Your task to perform on an android device: Open ESPN.com Image 0: 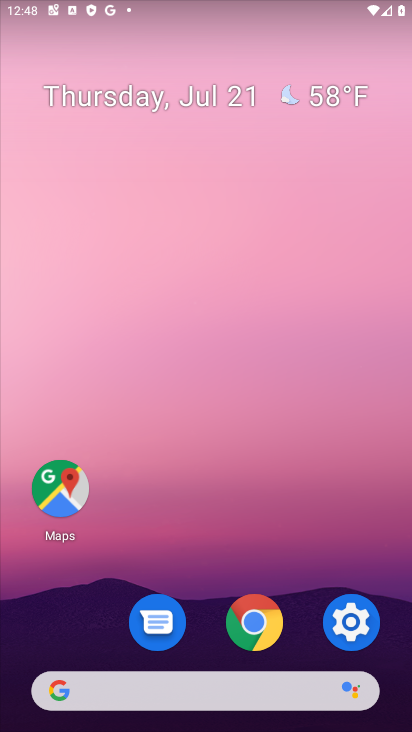
Step 0: click (256, 616)
Your task to perform on an android device: Open ESPN.com Image 1: 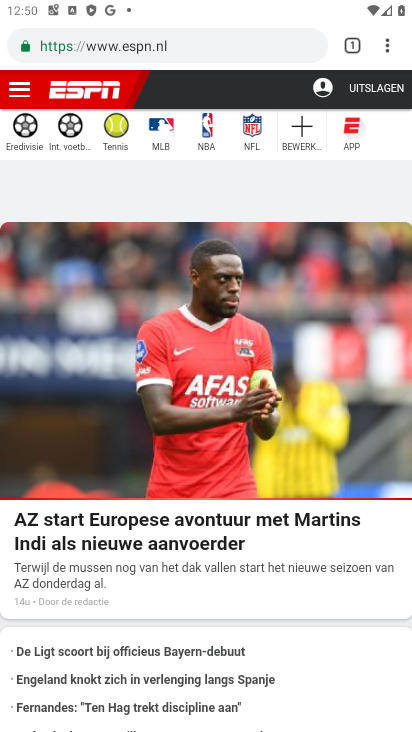
Step 1: task complete